Your task to perform on an android device: What is the recent news? Image 0: 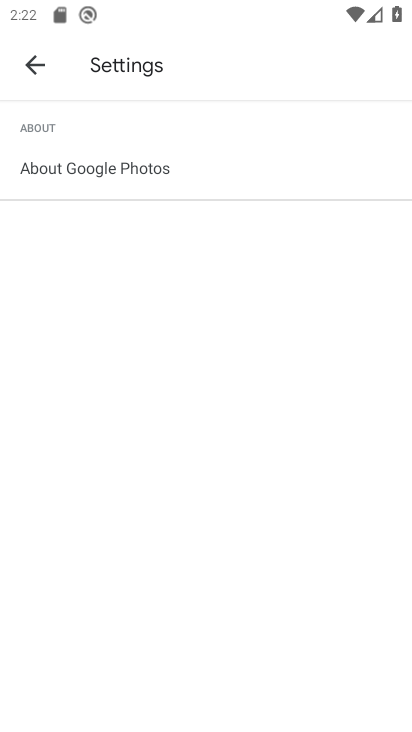
Step 0: press home button
Your task to perform on an android device: What is the recent news? Image 1: 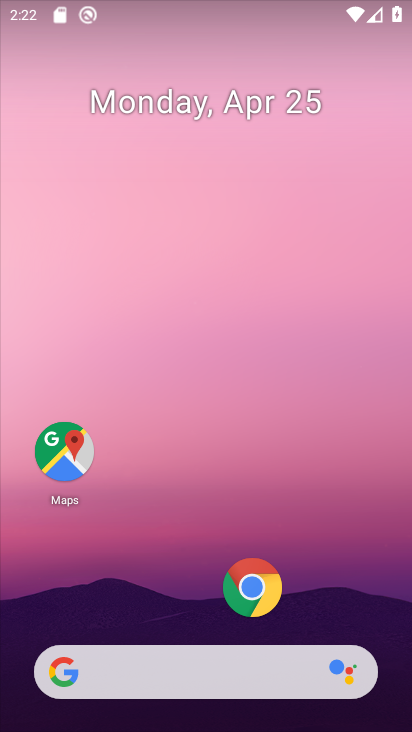
Step 1: task complete